Your task to perform on an android device: Open notification settings Image 0: 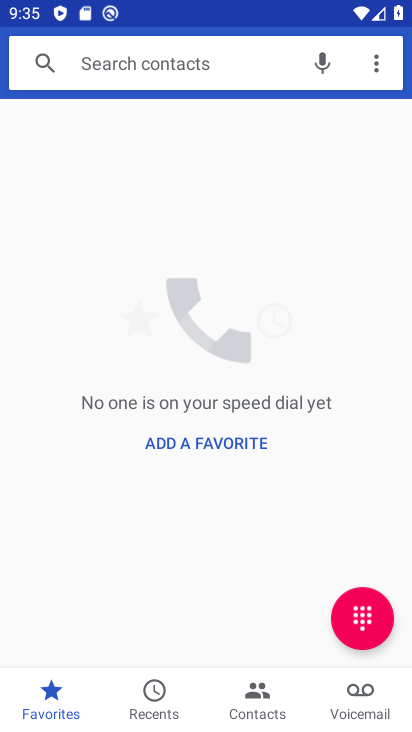
Step 0: press home button
Your task to perform on an android device: Open notification settings Image 1: 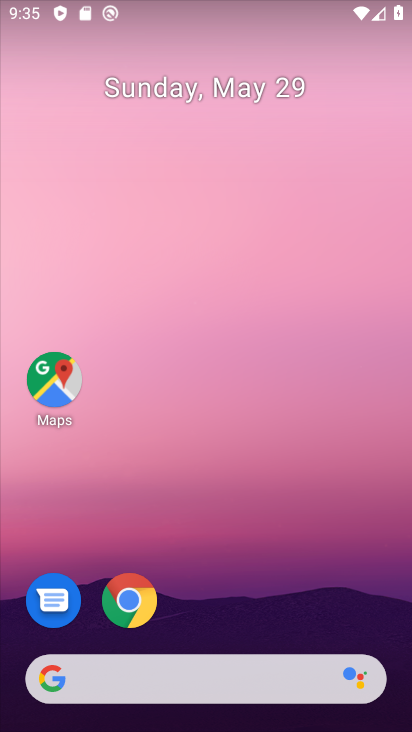
Step 1: drag from (234, 462) to (258, 50)
Your task to perform on an android device: Open notification settings Image 2: 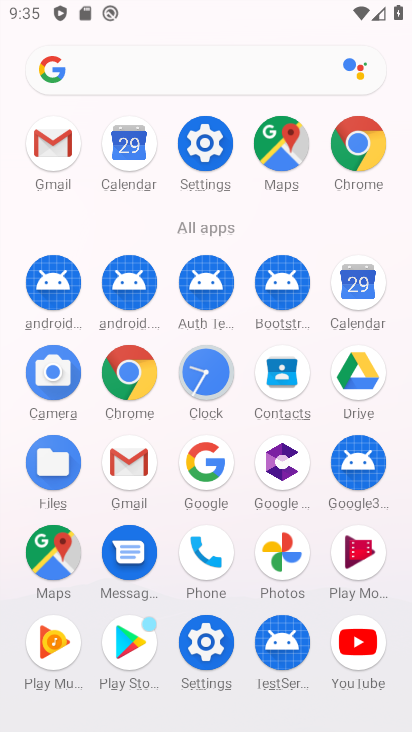
Step 2: click (195, 139)
Your task to perform on an android device: Open notification settings Image 3: 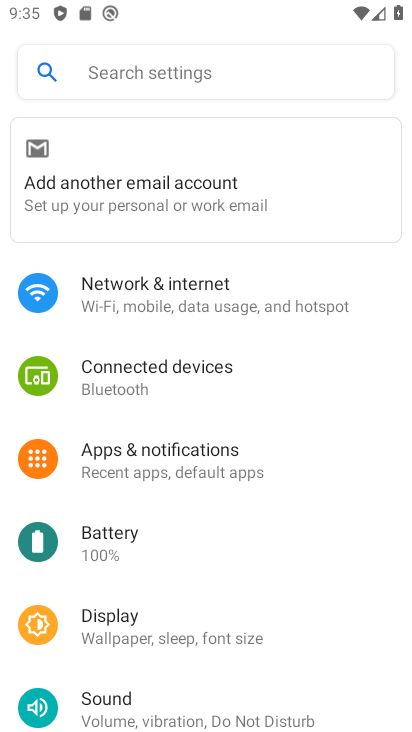
Step 3: click (122, 460)
Your task to perform on an android device: Open notification settings Image 4: 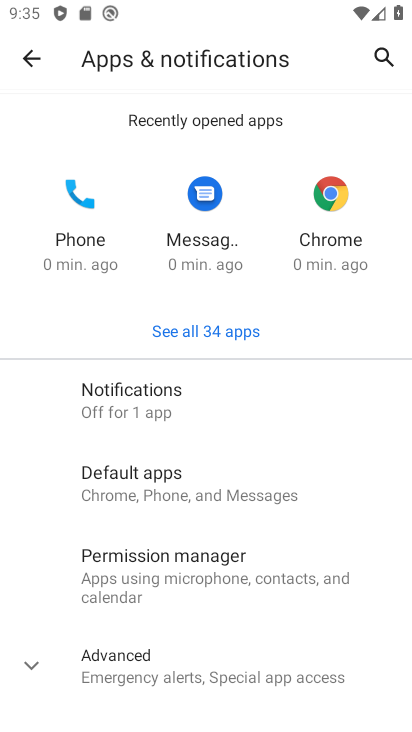
Step 4: click (157, 412)
Your task to perform on an android device: Open notification settings Image 5: 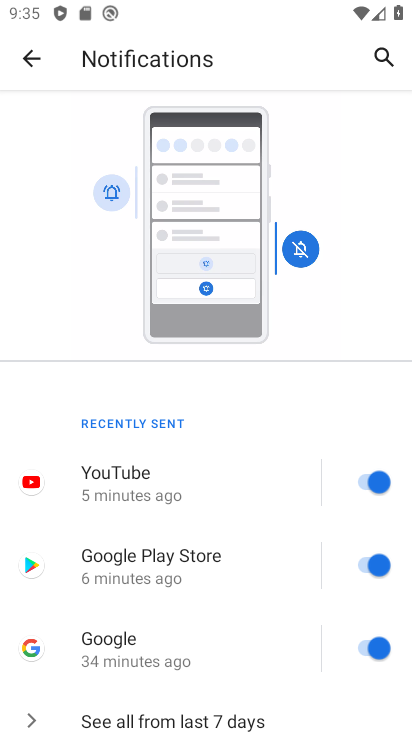
Step 5: task complete